Your task to perform on an android device: Turn on the flashlight Image 0: 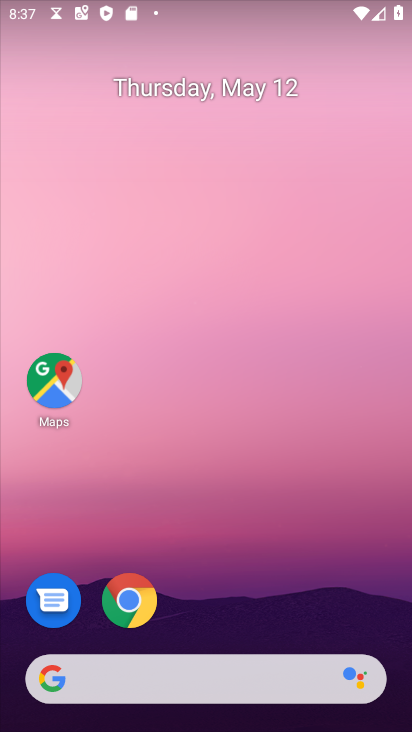
Step 0: drag from (224, 586) to (243, 91)
Your task to perform on an android device: Turn on the flashlight Image 1: 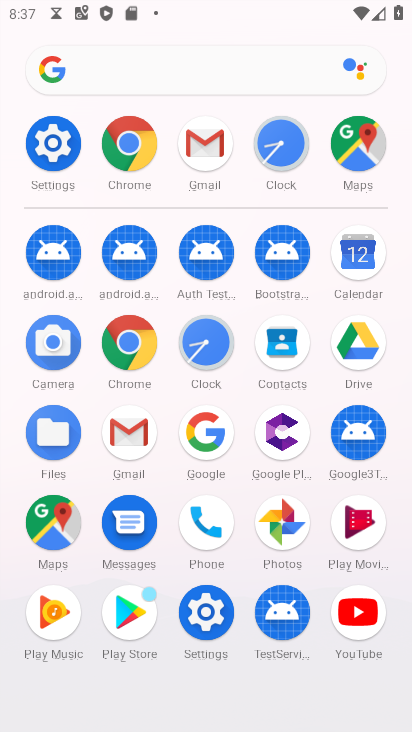
Step 1: drag from (238, 524) to (265, 342)
Your task to perform on an android device: Turn on the flashlight Image 2: 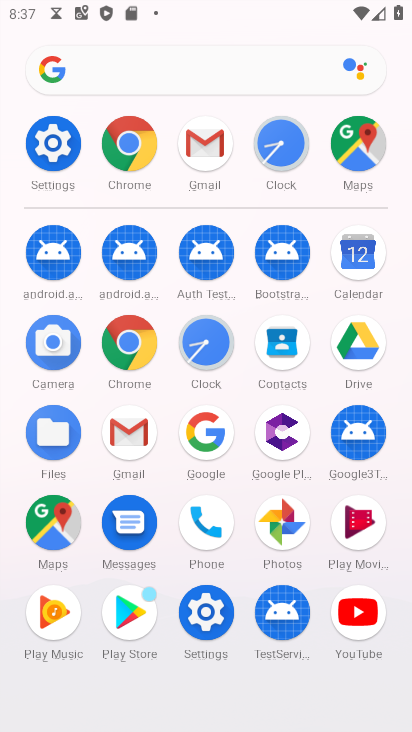
Step 2: click (46, 166)
Your task to perform on an android device: Turn on the flashlight Image 3: 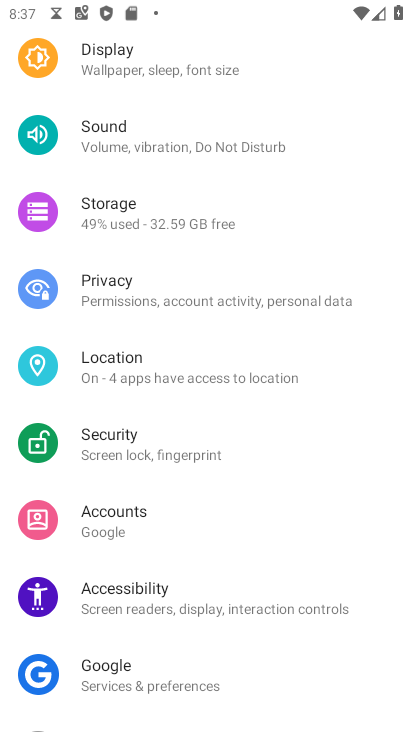
Step 3: task complete